Your task to perform on an android device: search for starred emails in the gmail app Image 0: 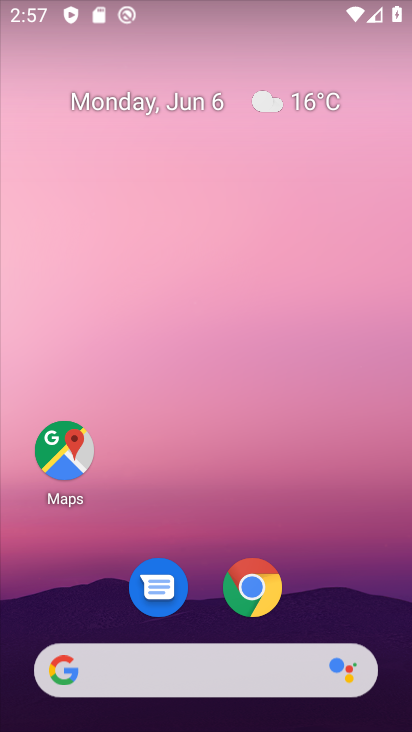
Step 0: drag from (391, 649) to (345, 23)
Your task to perform on an android device: search for starred emails in the gmail app Image 1: 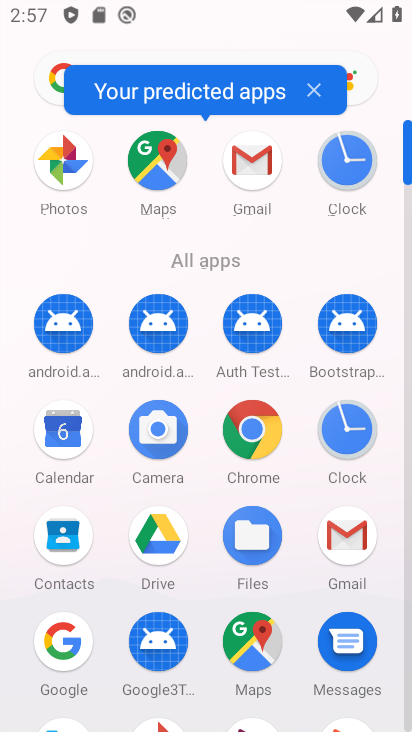
Step 1: click (408, 667)
Your task to perform on an android device: search for starred emails in the gmail app Image 2: 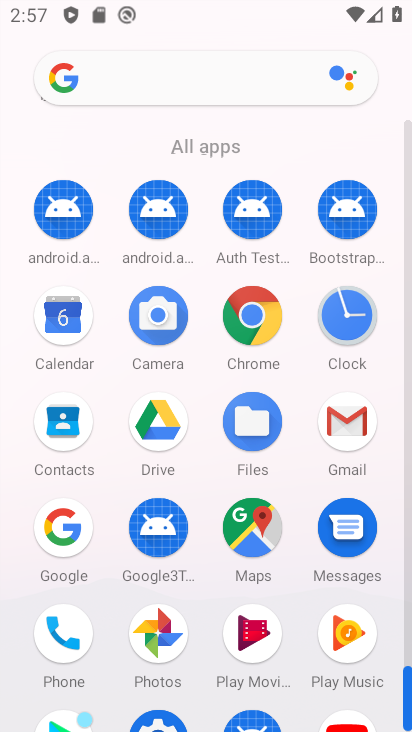
Step 2: click (343, 421)
Your task to perform on an android device: search for starred emails in the gmail app Image 3: 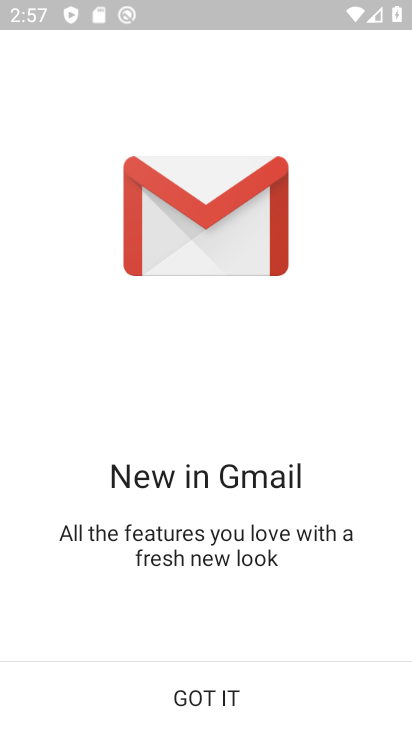
Step 3: click (208, 684)
Your task to perform on an android device: search for starred emails in the gmail app Image 4: 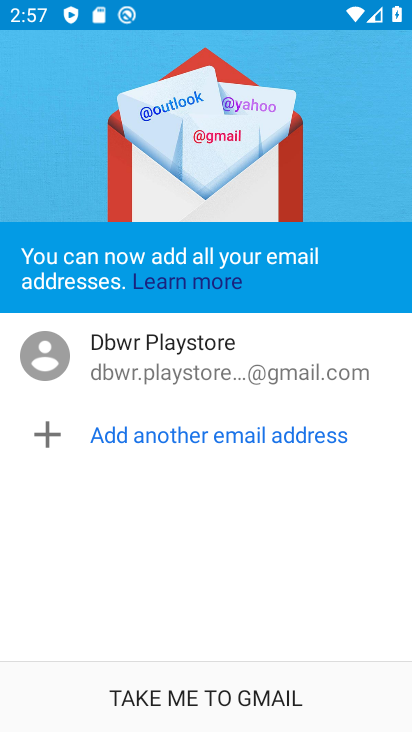
Step 4: click (208, 709)
Your task to perform on an android device: search for starred emails in the gmail app Image 5: 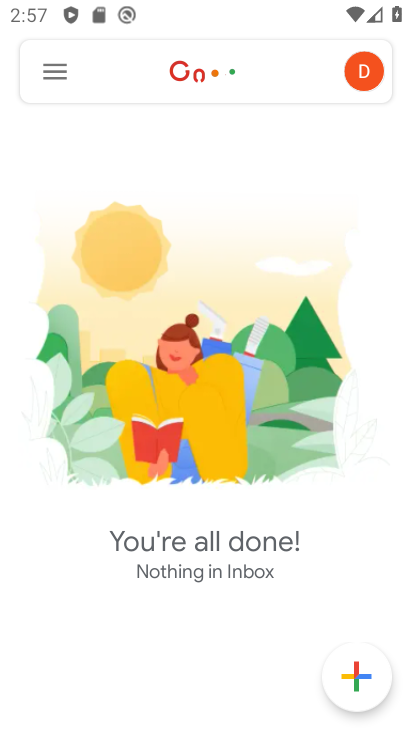
Step 5: click (49, 67)
Your task to perform on an android device: search for starred emails in the gmail app Image 6: 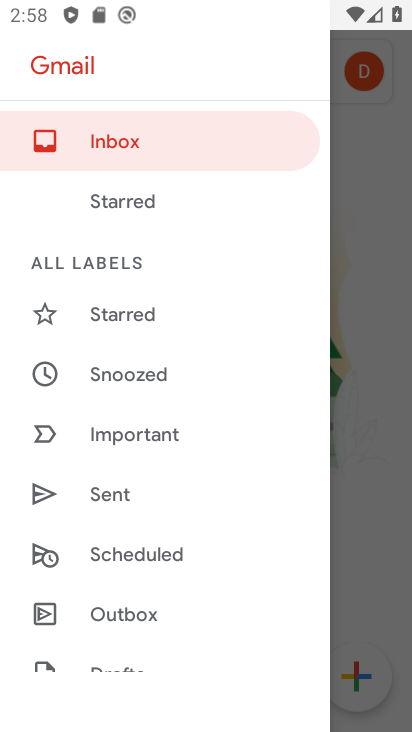
Step 6: click (125, 309)
Your task to perform on an android device: search for starred emails in the gmail app Image 7: 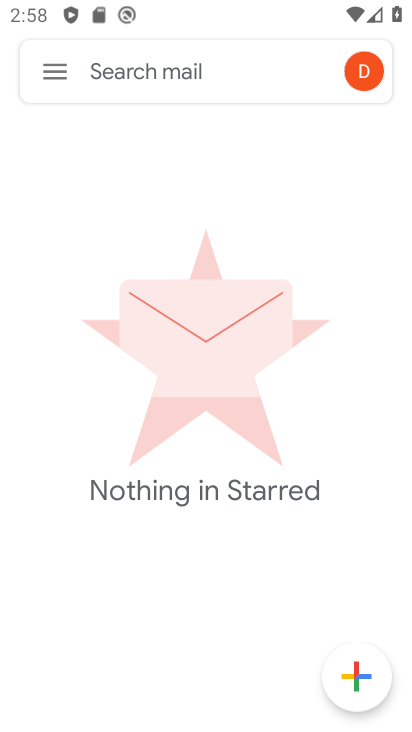
Step 7: task complete